Your task to perform on an android device: toggle notification dots Image 0: 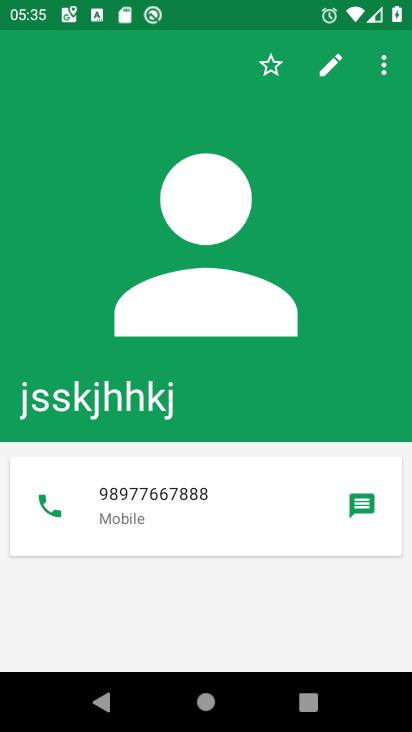
Step 0: press home button
Your task to perform on an android device: toggle notification dots Image 1: 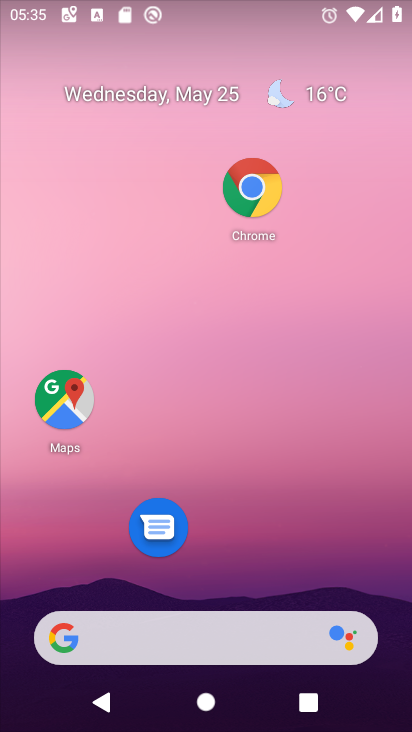
Step 1: drag from (203, 606) to (219, 55)
Your task to perform on an android device: toggle notification dots Image 2: 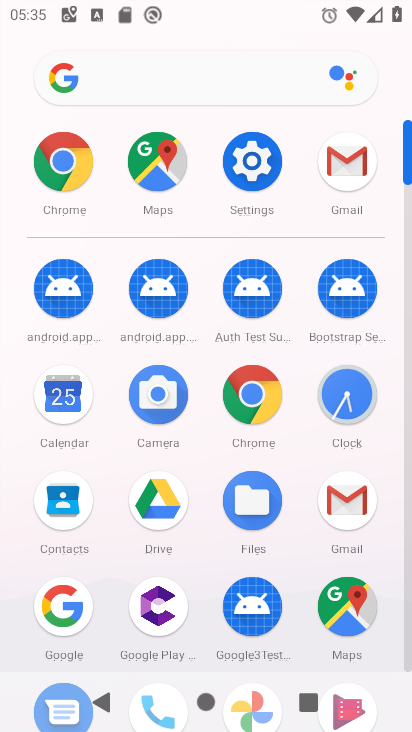
Step 2: click (255, 167)
Your task to perform on an android device: toggle notification dots Image 3: 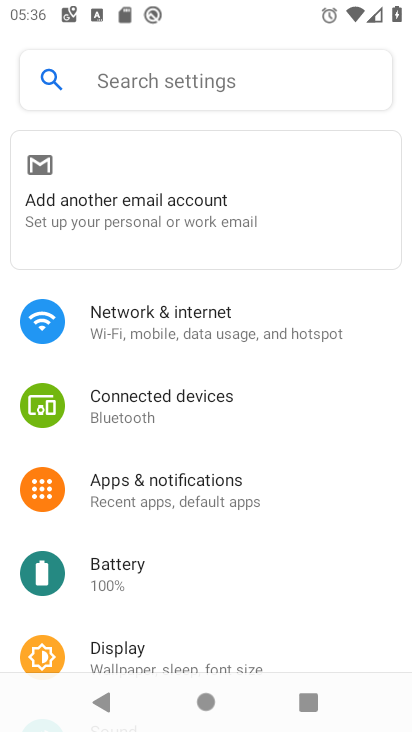
Step 3: click (146, 499)
Your task to perform on an android device: toggle notification dots Image 4: 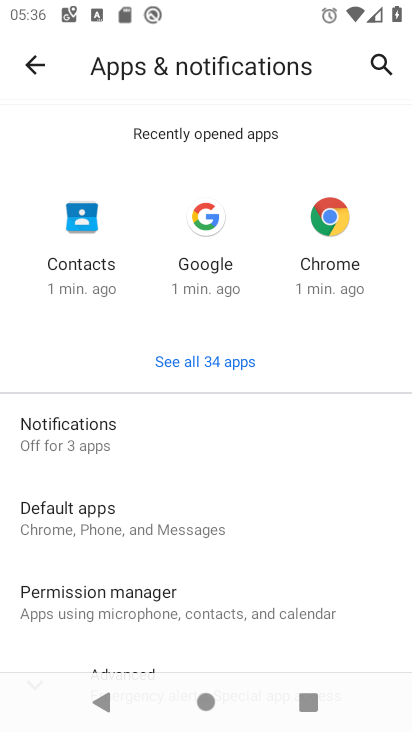
Step 4: drag from (154, 600) to (111, 50)
Your task to perform on an android device: toggle notification dots Image 5: 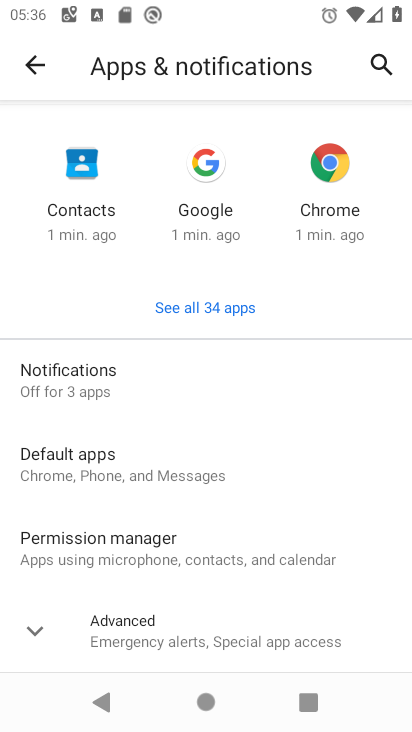
Step 5: click (128, 632)
Your task to perform on an android device: toggle notification dots Image 6: 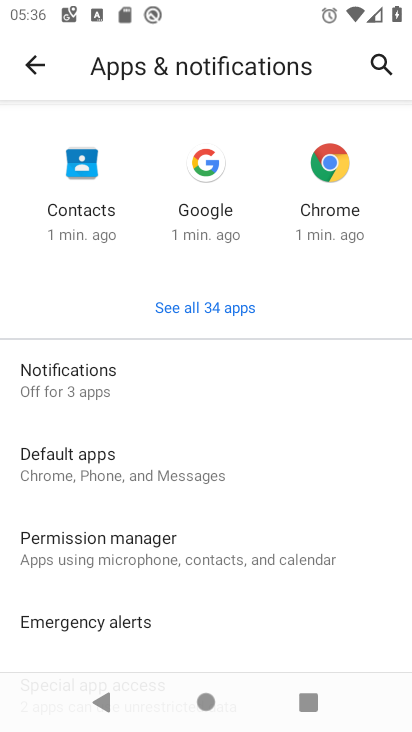
Step 6: drag from (145, 639) to (192, 381)
Your task to perform on an android device: toggle notification dots Image 7: 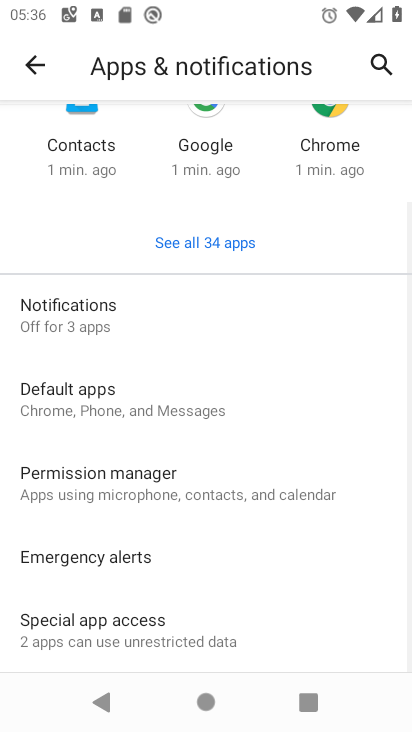
Step 7: click (102, 317)
Your task to perform on an android device: toggle notification dots Image 8: 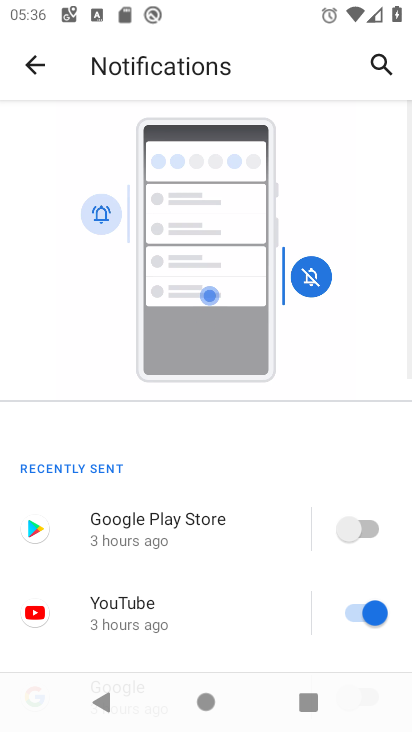
Step 8: drag from (281, 622) to (331, 49)
Your task to perform on an android device: toggle notification dots Image 9: 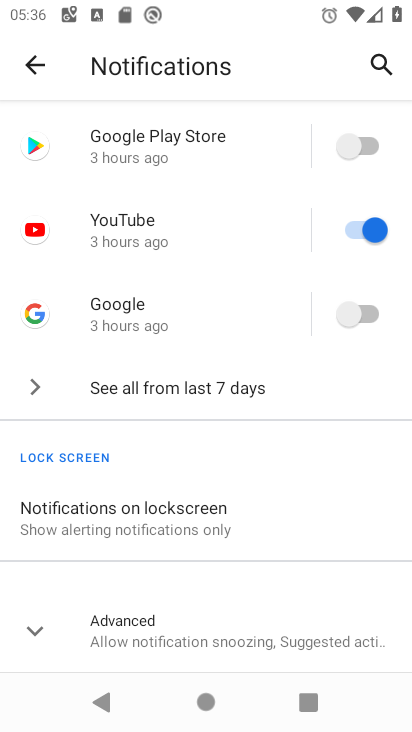
Step 9: click (180, 629)
Your task to perform on an android device: toggle notification dots Image 10: 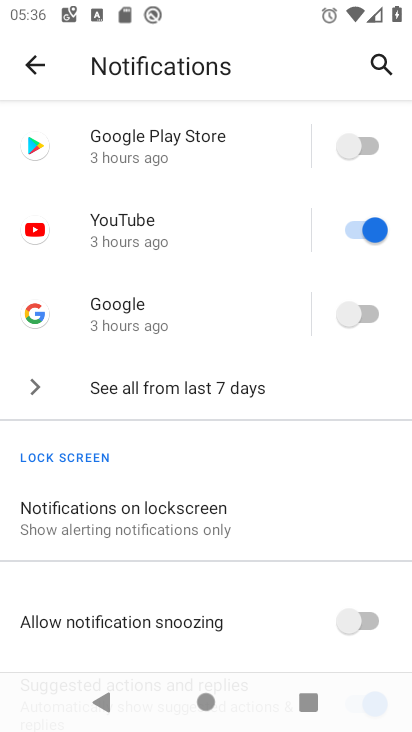
Step 10: drag from (170, 631) to (202, 92)
Your task to perform on an android device: toggle notification dots Image 11: 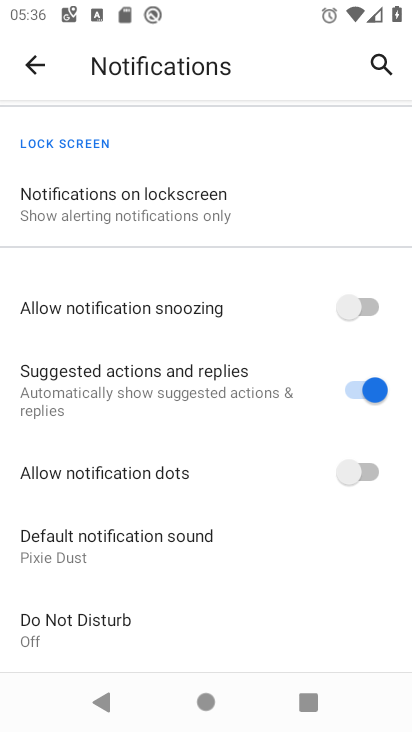
Step 11: click (368, 473)
Your task to perform on an android device: toggle notification dots Image 12: 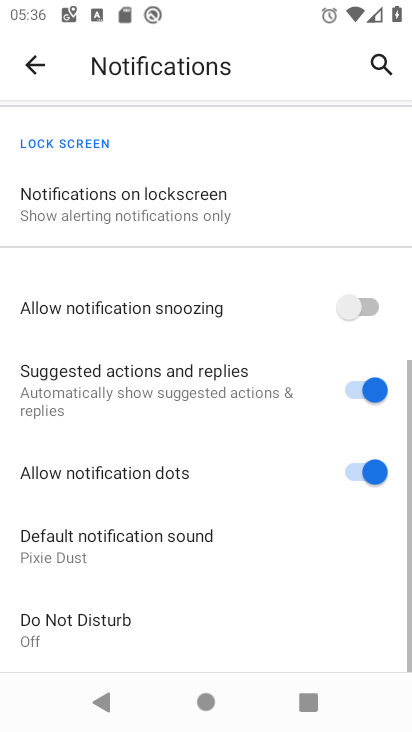
Step 12: task complete